Your task to perform on an android device: Search for "acer predator" on target, select the first entry, add it to the cart, then select checkout. Image 0: 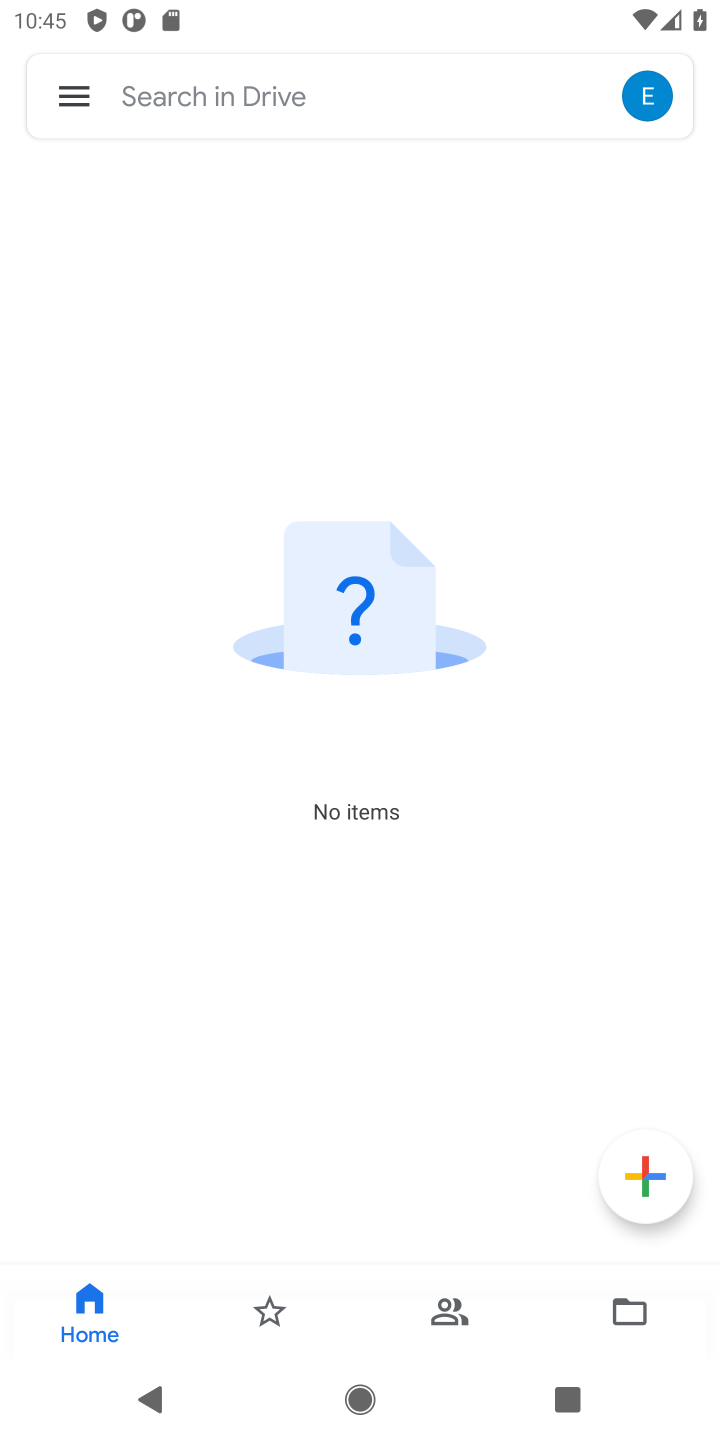
Step 0: task complete